Your task to perform on an android device: Open Google Maps and go to "Timeline" Image 0: 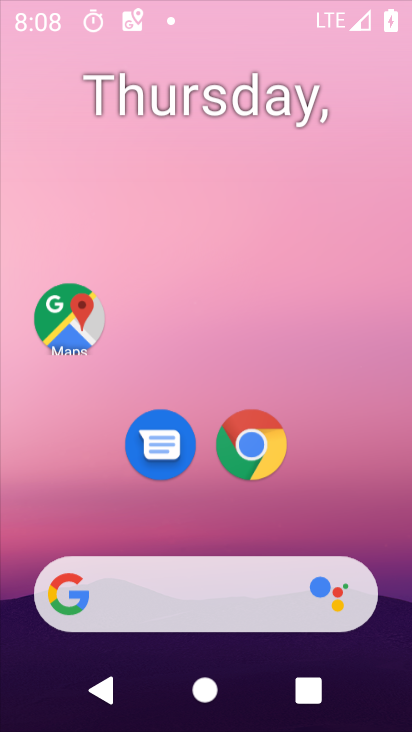
Step 0: click (216, 169)
Your task to perform on an android device: Open Google Maps and go to "Timeline" Image 1: 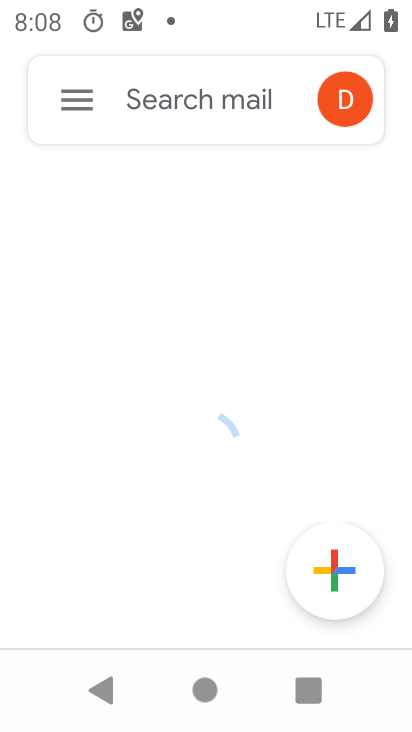
Step 1: press home button
Your task to perform on an android device: Open Google Maps and go to "Timeline" Image 2: 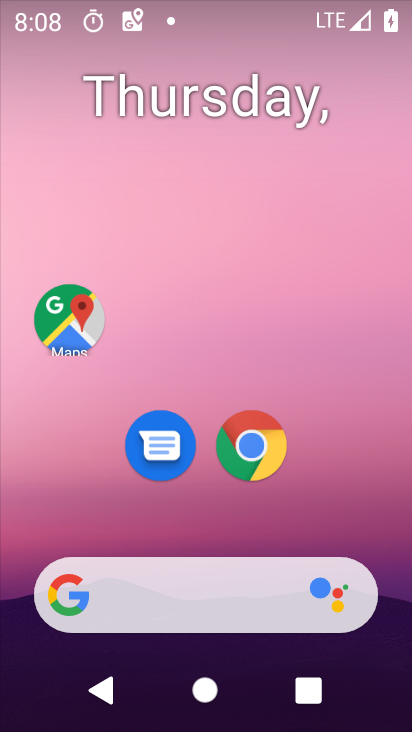
Step 2: drag from (226, 513) to (199, 179)
Your task to perform on an android device: Open Google Maps and go to "Timeline" Image 3: 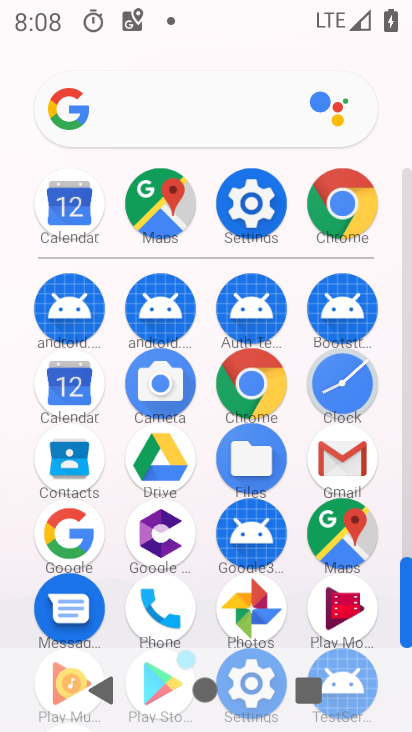
Step 3: click (336, 521)
Your task to perform on an android device: Open Google Maps and go to "Timeline" Image 4: 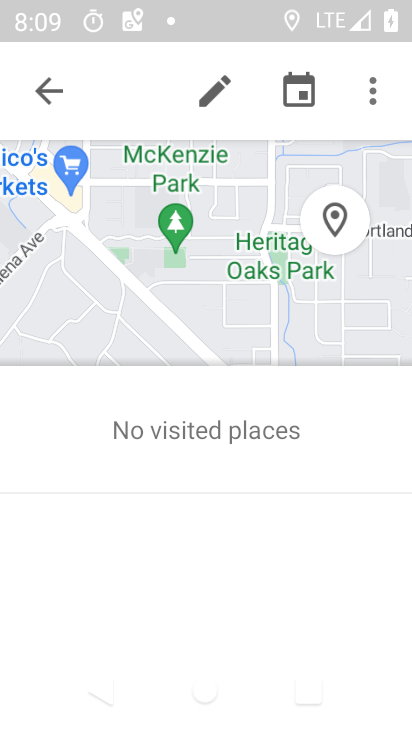
Step 4: click (37, 99)
Your task to perform on an android device: Open Google Maps and go to "Timeline" Image 5: 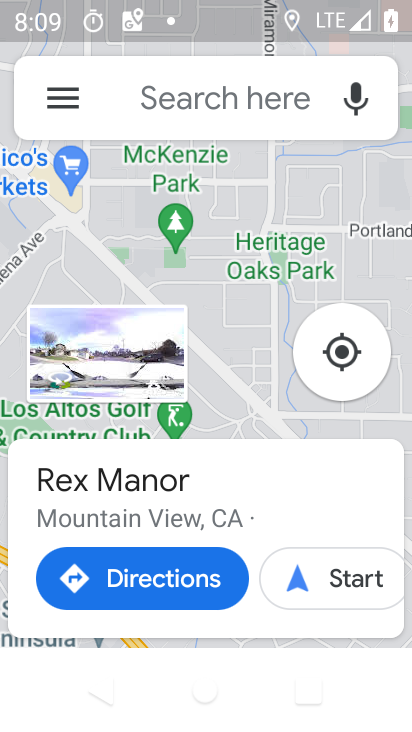
Step 5: click (54, 89)
Your task to perform on an android device: Open Google Maps and go to "Timeline" Image 6: 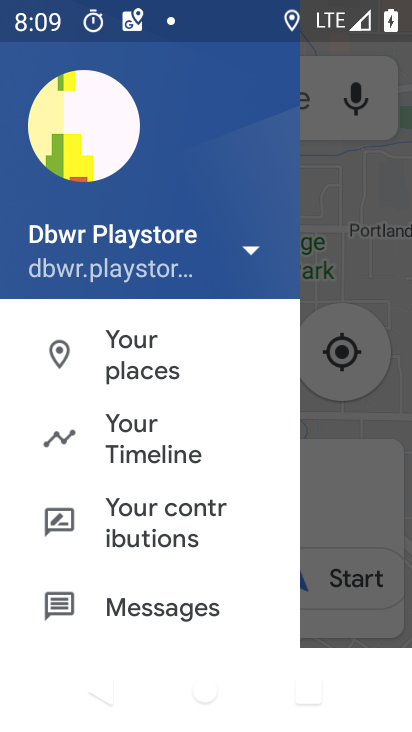
Step 6: click (144, 436)
Your task to perform on an android device: Open Google Maps and go to "Timeline" Image 7: 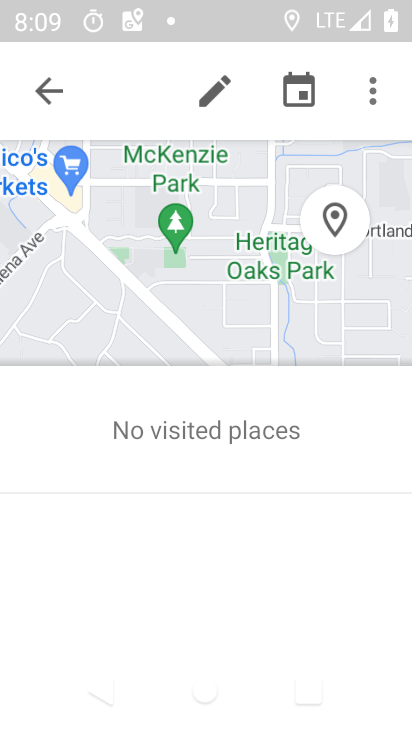
Step 7: task complete